Your task to perform on an android device: Open internet settings Image 0: 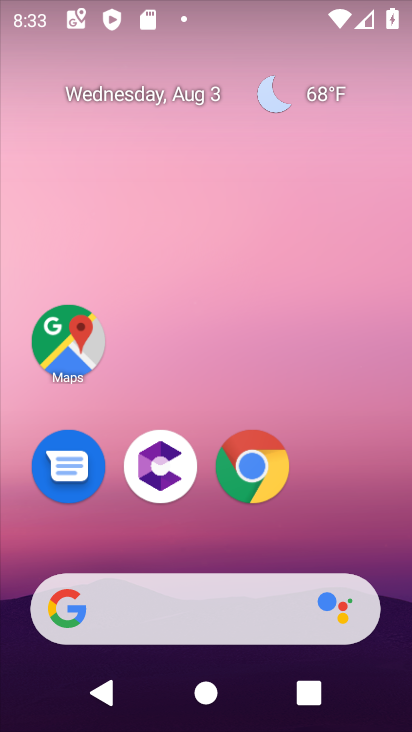
Step 0: drag from (385, 504) to (369, 72)
Your task to perform on an android device: Open internet settings Image 1: 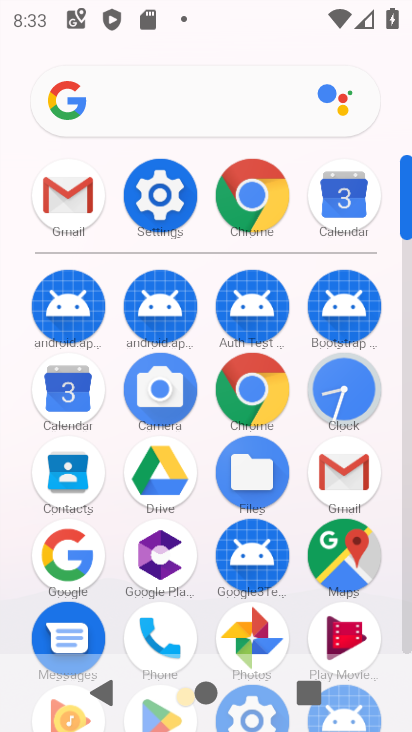
Step 1: click (170, 211)
Your task to perform on an android device: Open internet settings Image 2: 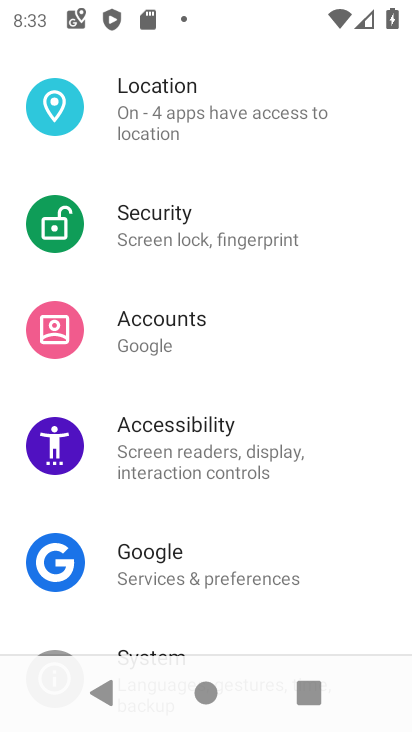
Step 2: drag from (275, 131) to (331, 506)
Your task to perform on an android device: Open internet settings Image 3: 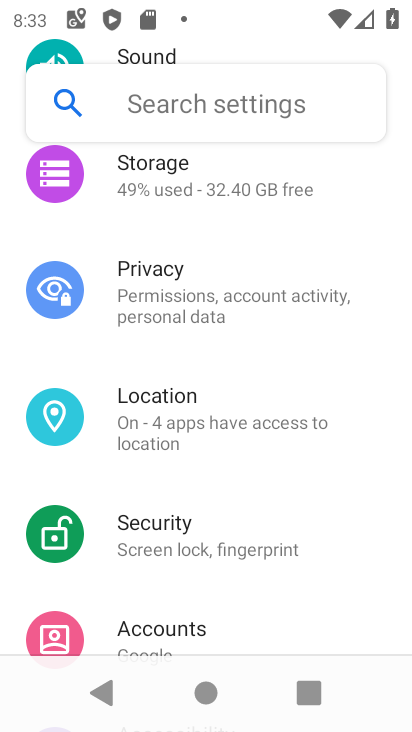
Step 3: drag from (312, 174) to (285, 495)
Your task to perform on an android device: Open internet settings Image 4: 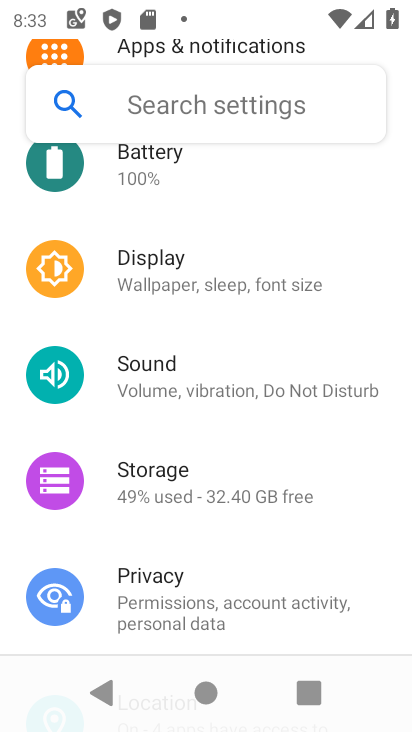
Step 4: drag from (306, 181) to (274, 552)
Your task to perform on an android device: Open internet settings Image 5: 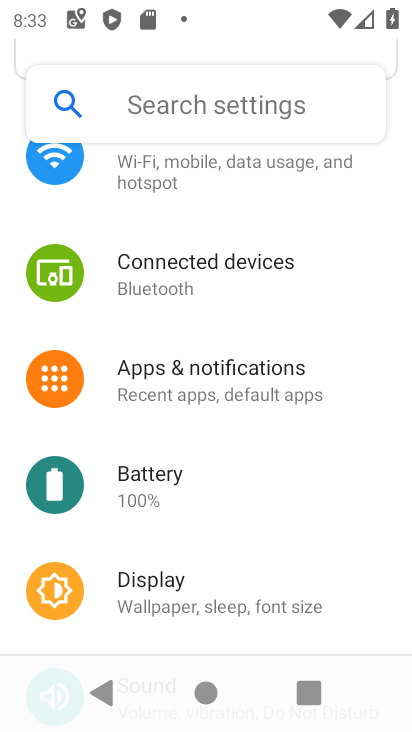
Step 5: click (233, 178)
Your task to perform on an android device: Open internet settings Image 6: 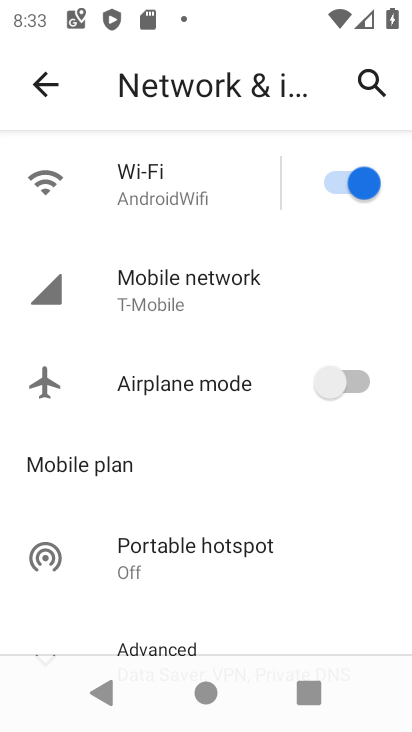
Step 6: drag from (261, 578) to (274, 238)
Your task to perform on an android device: Open internet settings Image 7: 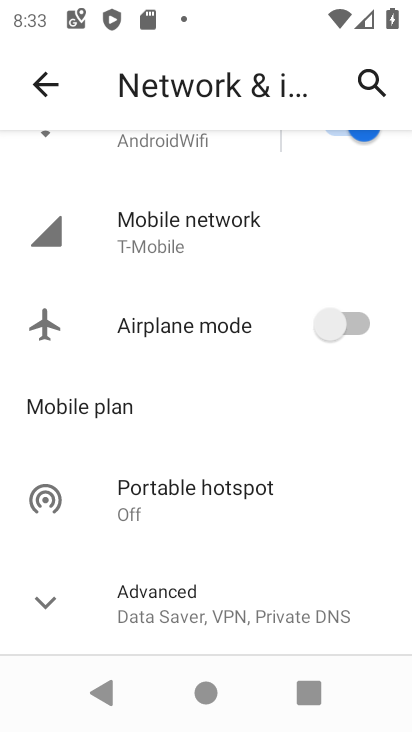
Step 7: click (194, 616)
Your task to perform on an android device: Open internet settings Image 8: 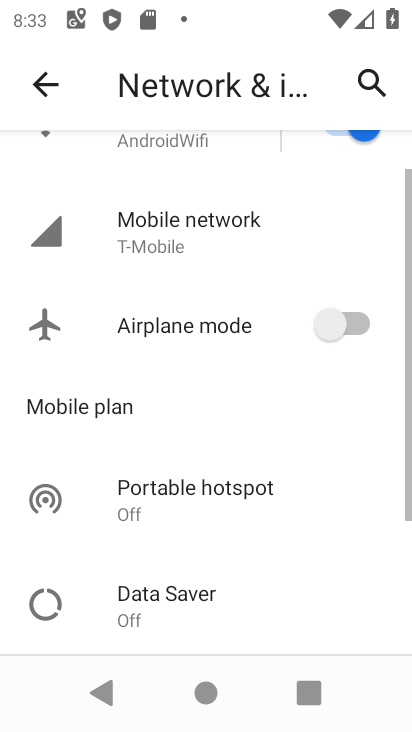
Step 8: task complete